Your task to perform on an android device: Set the phone to "Do not disturb". Image 0: 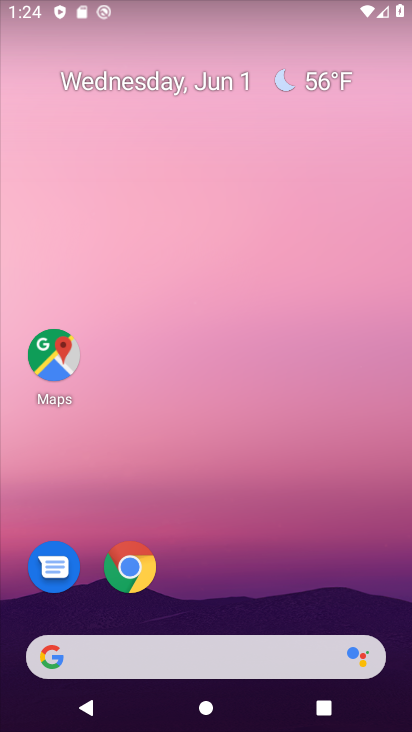
Step 0: drag from (187, 645) to (220, 22)
Your task to perform on an android device: Set the phone to "Do not disturb". Image 1: 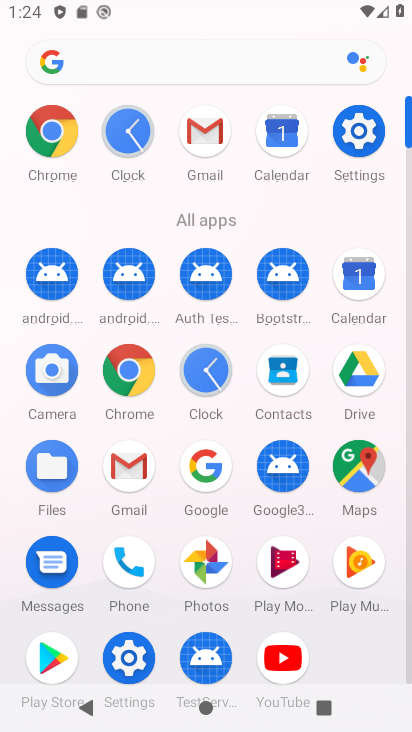
Step 1: click (360, 136)
Your task to perform on an android device: Set the phone to "Do not disturb". Image 2: 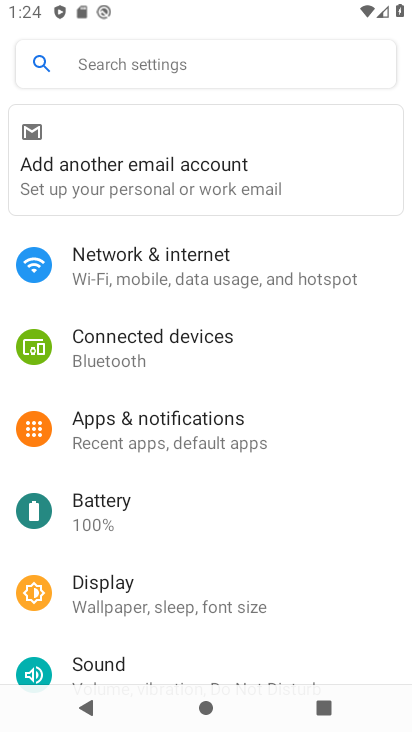
Step 2: click (97, 653)
Your task to perform on an android device: Set the phone to "Do not disturb". Image 3: 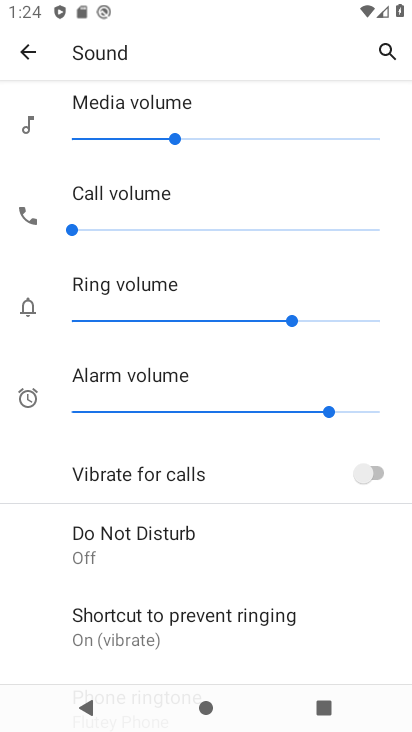
Step 3: click (109, 559)
Your task to perform on an android device: Set the phone to "Do not disturb". Image 4: 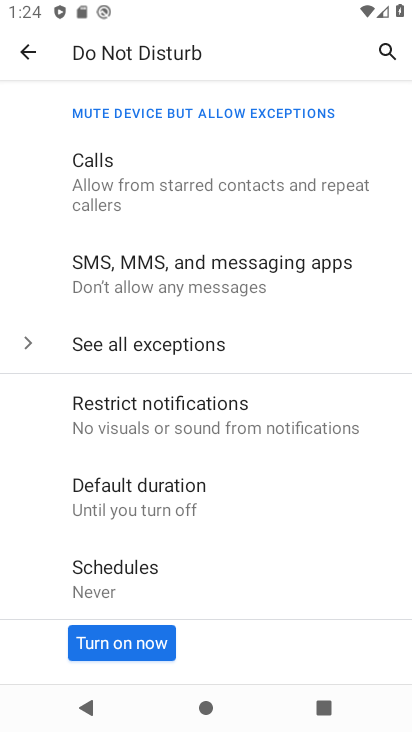
Step 4: click (103, 647)
Your task to perform on an android device: Set the phone to "Do not disturb". Image 5: 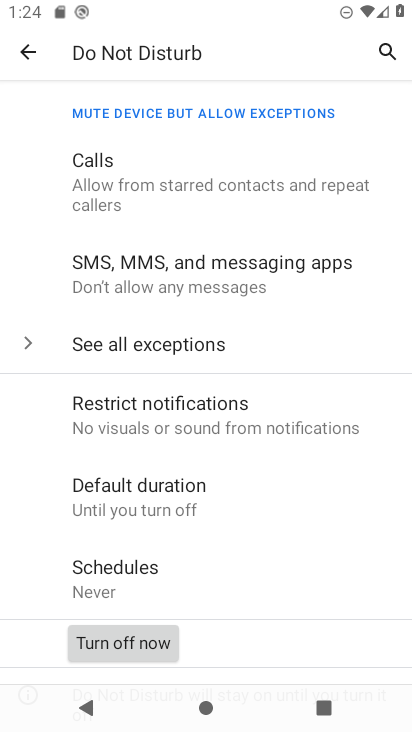
Step 5: task complete